Your task to perform on an android device: Show me popular games on the Play Store Image 0: 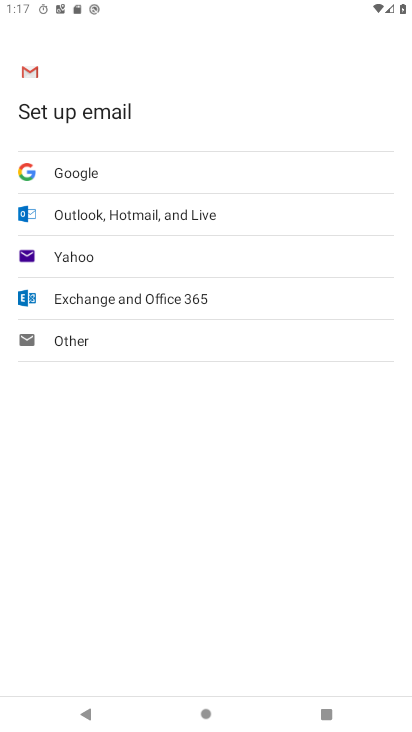
Step 0: press home button
Your task to perform on an android device: Show me popular games on the Play Store Image 1: 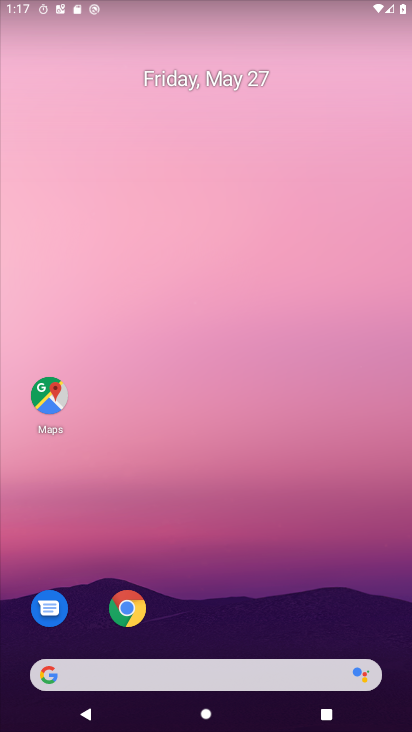
Step 1: drag from (387, 689) to (301, 87)
Your task to perform on an android device: Show me popular games on the Play Store Image 2: 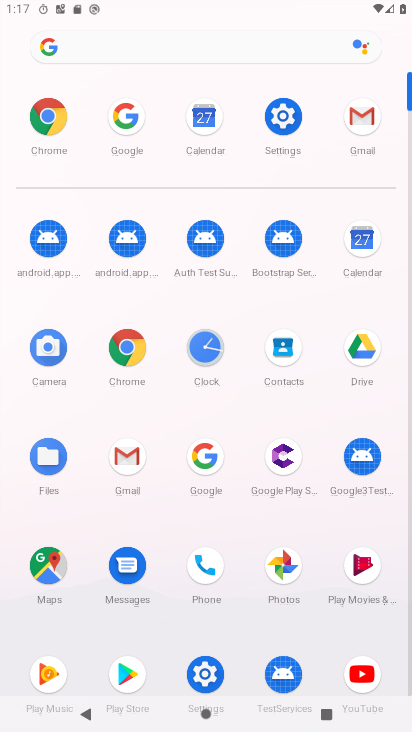
Step 2: click (119, 679)
Your task to perform on an android device: Show me popular games on the Play Store Image 3: 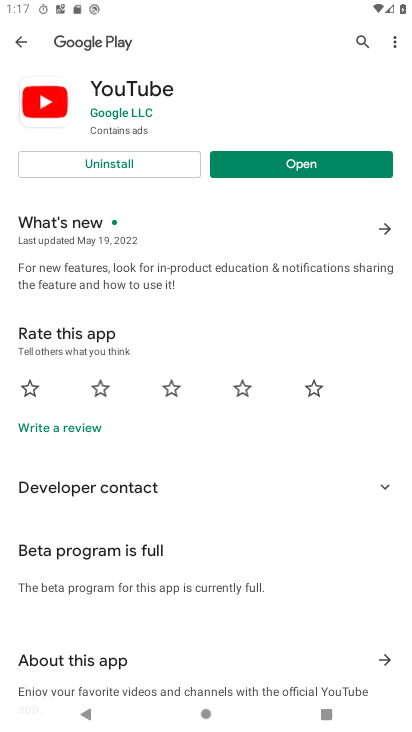
Step 3: press back button
Your task to perform on an android device: Show me popular games on the Play Store Image 4: 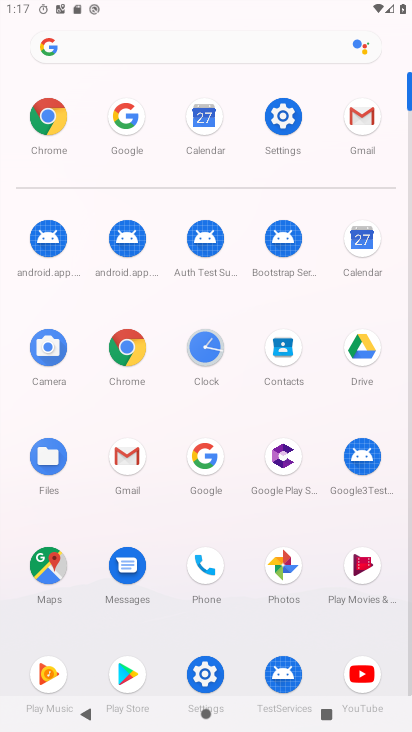
Step 4: click (115, 678)
Your task to perform on an android device: Show me popular games on the Play Store Image 5: 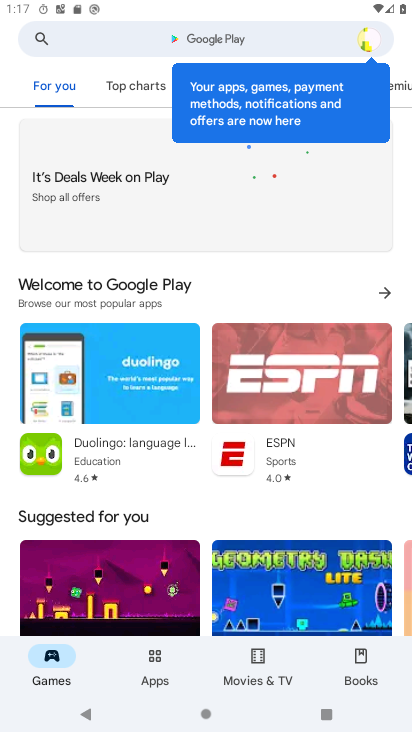
Step 5: click (141, 38)
Your task to perform on an android device: Show me popular games on the Play Store Image 6: 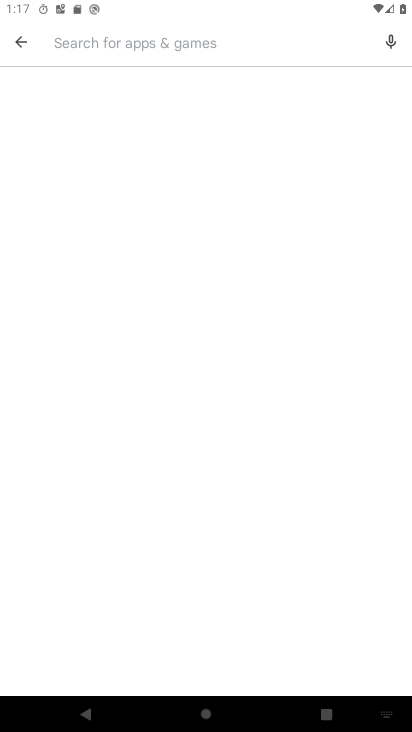
Step 6: type "popular games"
Your task to perform on an android device: Show me popular games on the Play Store Image 7: 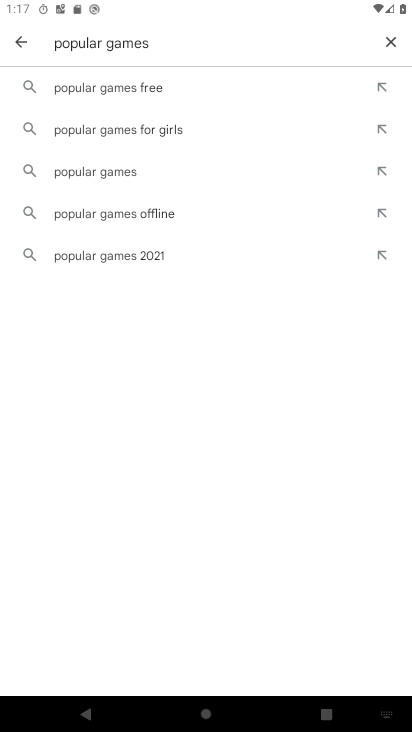
Step 7: click (99, 165)
Your task to perform on an android device: Show me popular games on the Play Store Image 8: 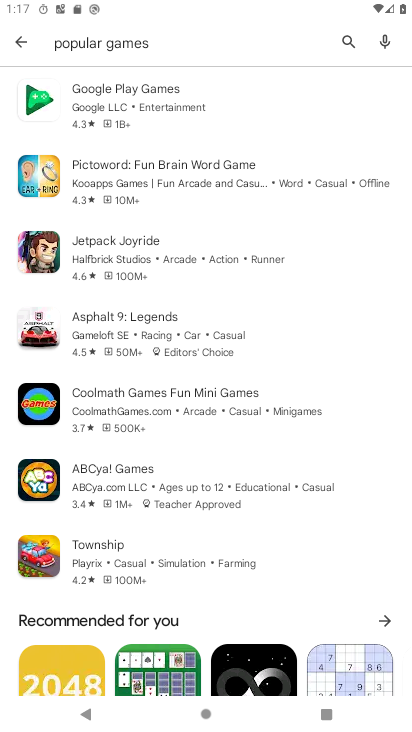
Step 8: task complete